Your task to perform on an android device: Open Yahoo.com Image 0: 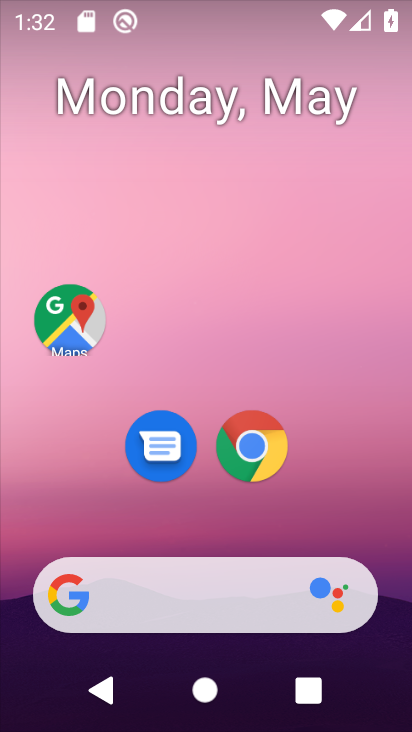
Step 0: drag from (374, 547) to (374, 252)
Your task to perform on an android device: Open Yahoo.com Image 1: 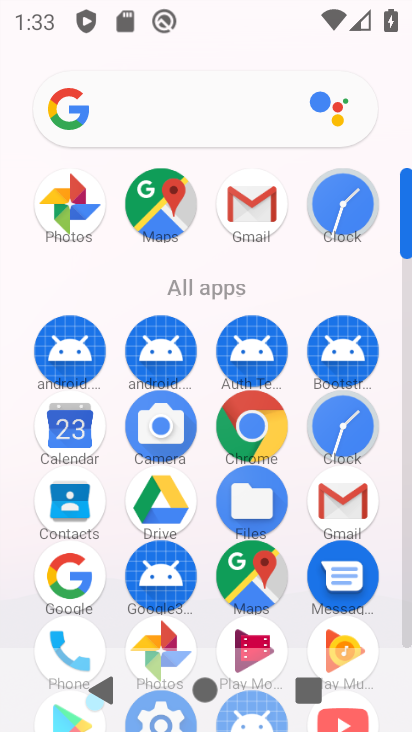
Step 1: click (253, 438)
Your task to perform on an android device: Open Yahoo.com Image 2: 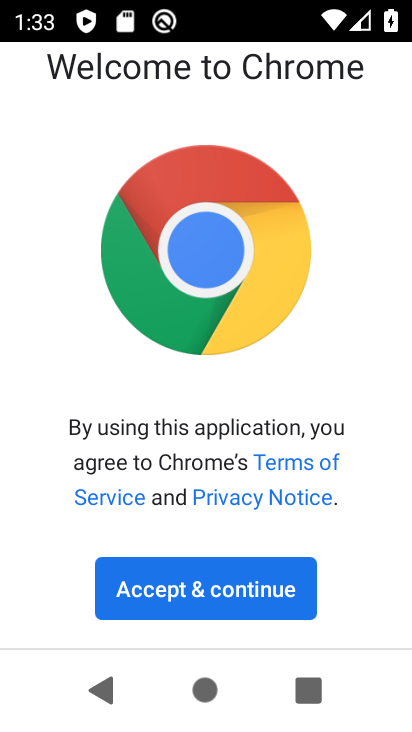
Step 2: click (271, 587)
Your task to perform on an android device: Open Yahoo.com Image 3: 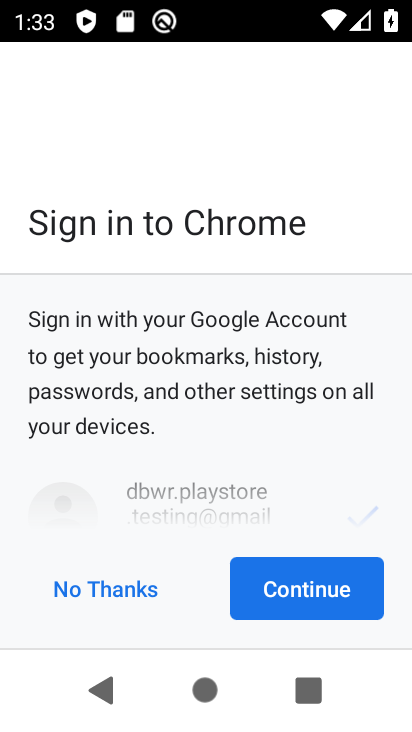
Step 3: click (281, 598)
Your task to perform on an android device: Open Yahoo.com Image 4: 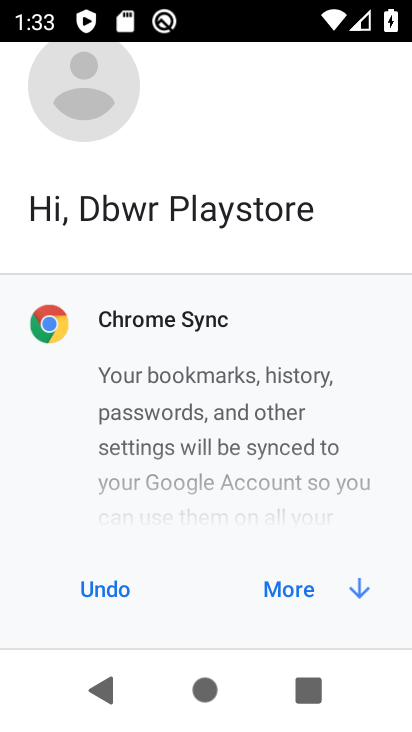
Step 4: click (290, 582)
Your task to perform on an android device: Open Yahoo.com Image 5: 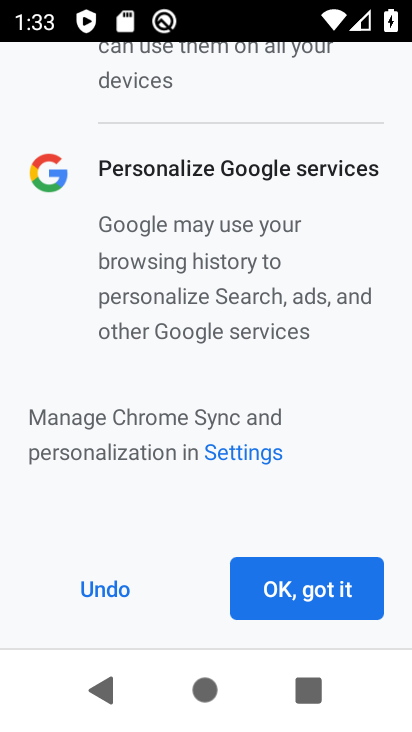
Step 5: click (264, 592)
Your task to perform on an android device: Open Yahoo.com Image 6: 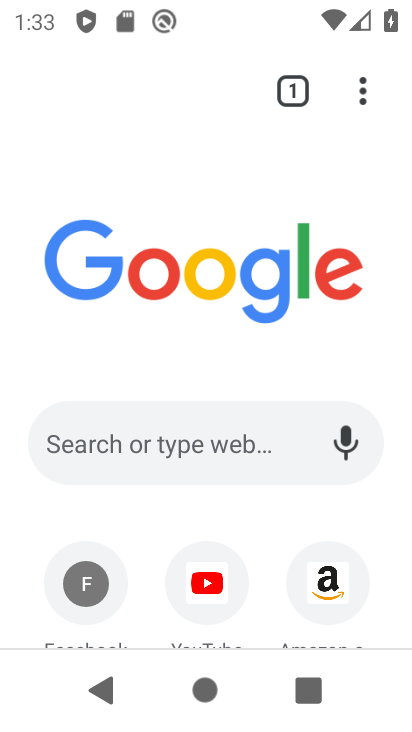
Step 6: click (290, 448)
Your task to perform on an android device: Open Yahoo.com Image 7: 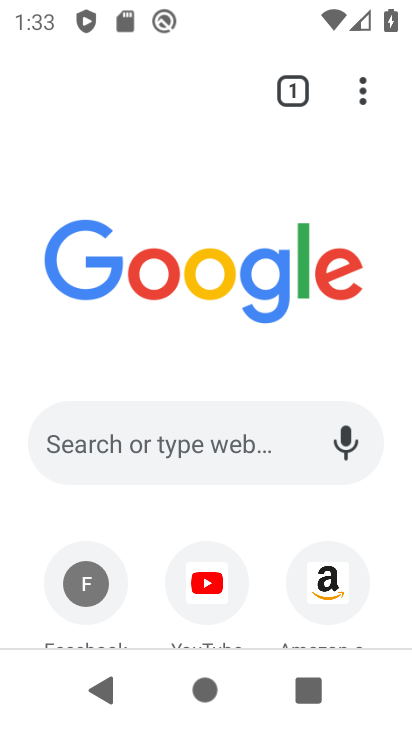
Step 7: click (262, 476)
Your task to perform on an android device: Open Yahoo.com Image 8: 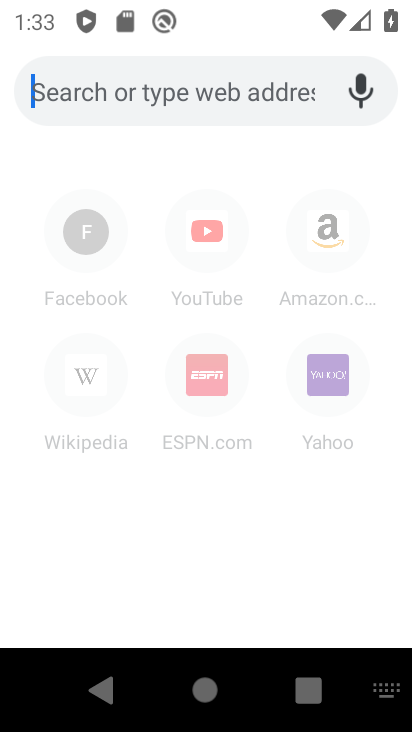
Step 8: type "yahoo.com"
Your task to perform on an android device: Open Yahoo.com Image 9: 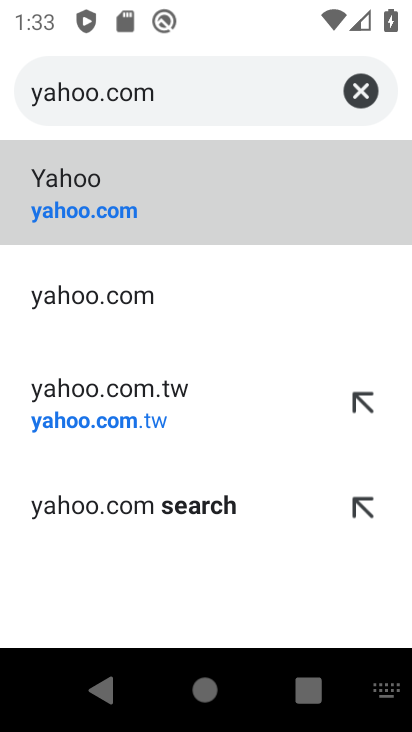
Step 9: click (100, 213)
Your task to perform on an android device: Open Yahoo.com Image 10: 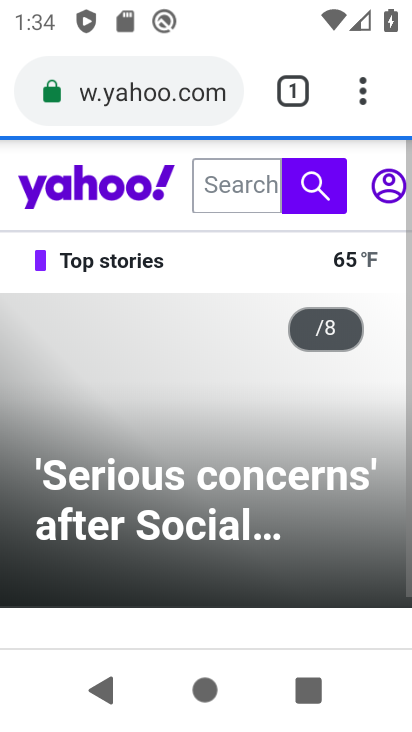
Step 10: task complete